Your task to perform on an android device: uninstall "Google Photos" Image 0: 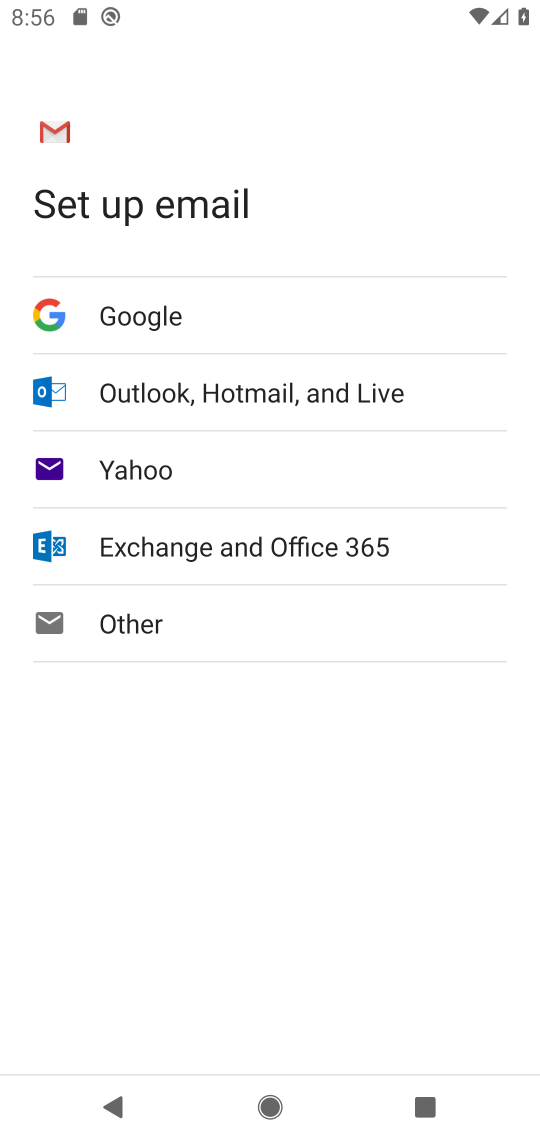
Step 0: press home button
Your task to perform on an android device: uninstall "Google Photos" Image 1: 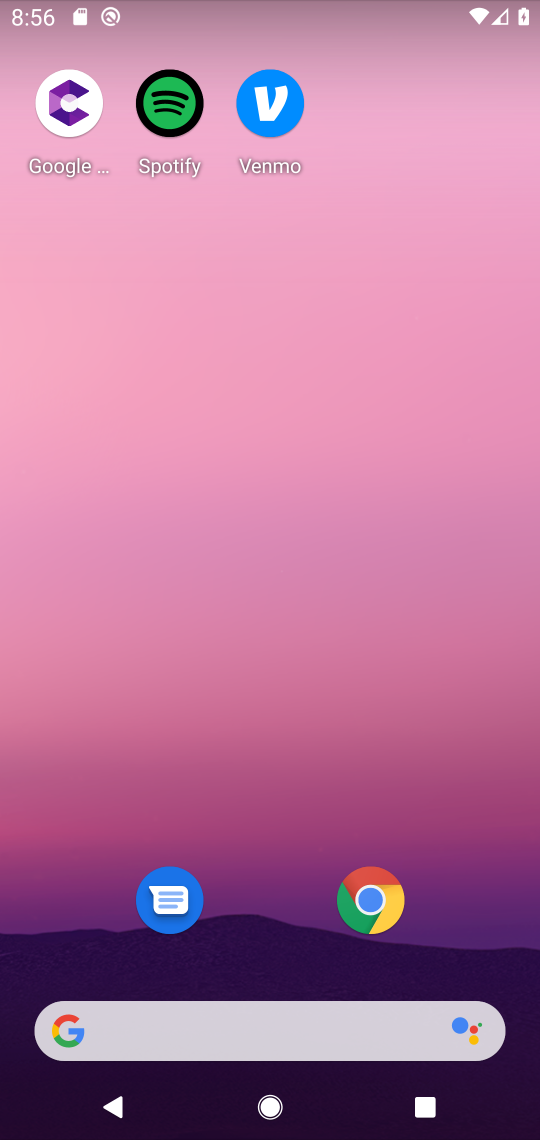
Step 1: drag from (263, 933) to (234, 246)
Your task to perform on an android device: uninstall "Google Photos" Image 2: 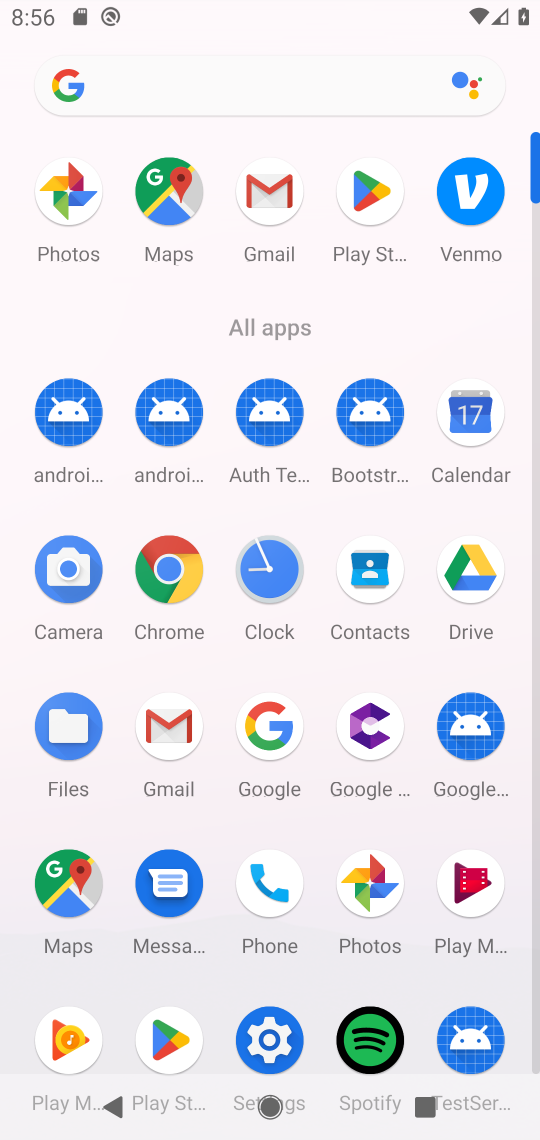
Step 2: click (373, 217)
Your task to perform on an android device: uninstall "Google Photos" Image 3: 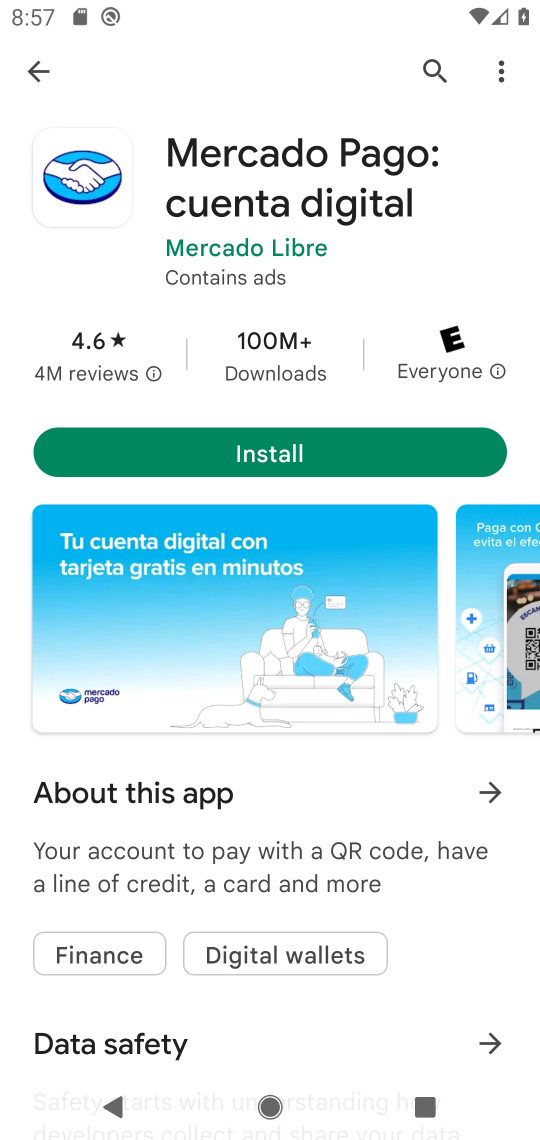
Step 3: click (33, 68)
Your task to perform on an android device: uninstall "Google Photos" Image 4: 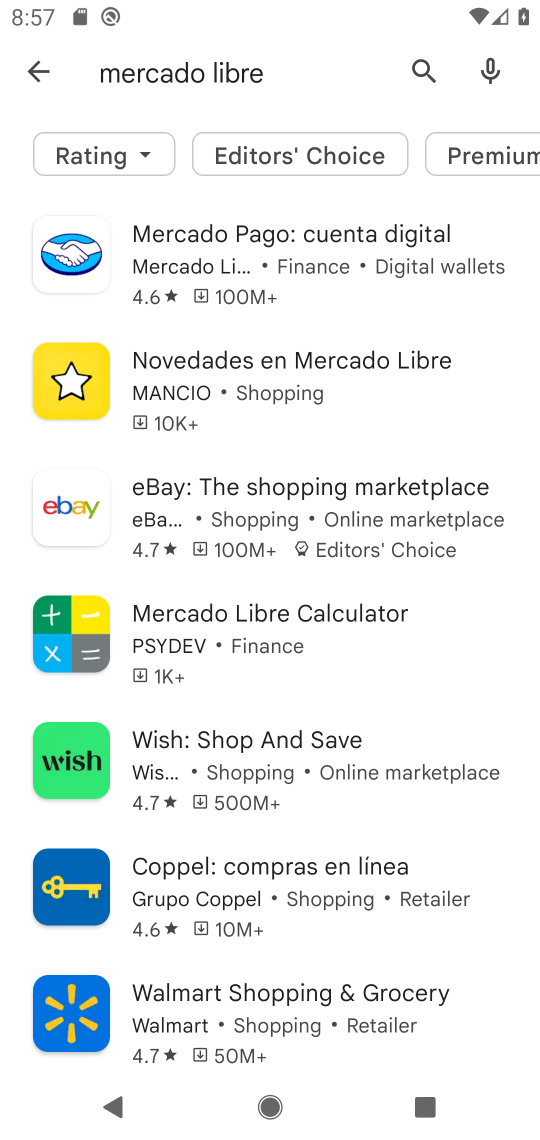
Step 4: click (24, 60)
Your task to perform on an android device: uninstall "Google Photos" Image 5: 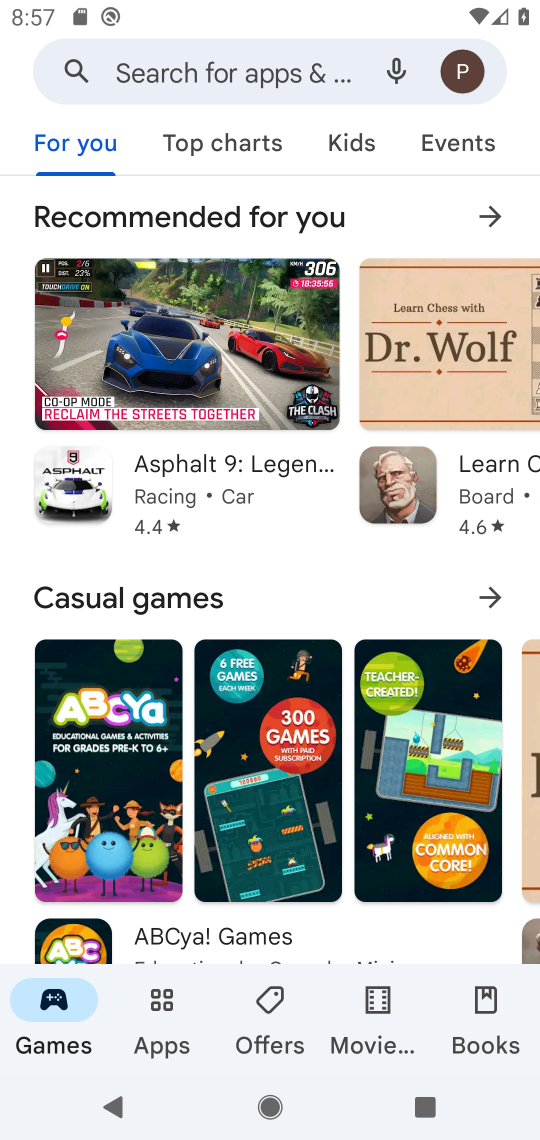
Step 5: click (167, 85)
Your task to perform on an android device: uninstall "Google Photos" Image 6: 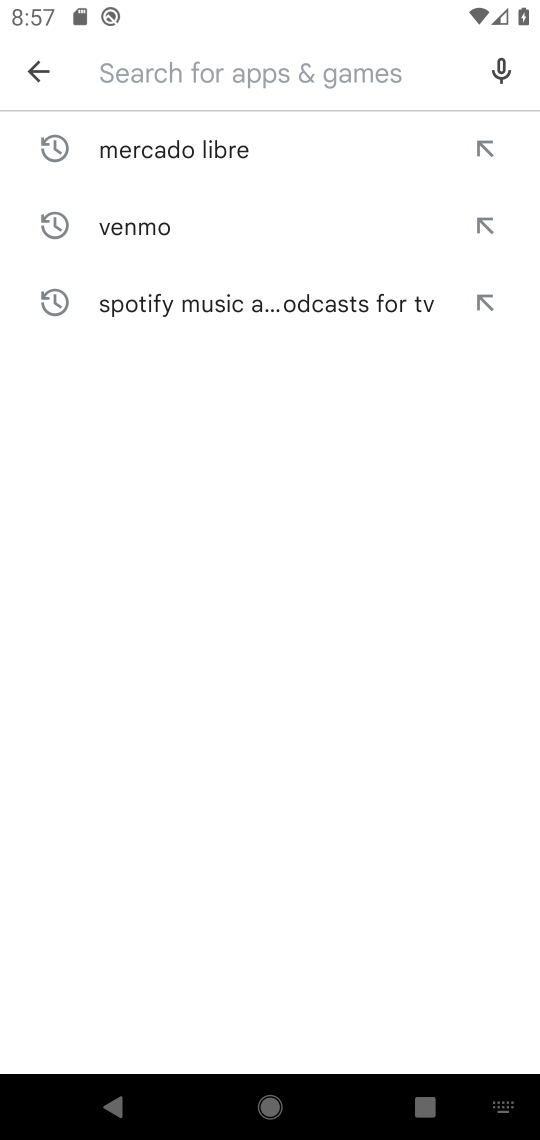
Step 6: type "Google Photos"
Your task to perform on an android device: uninstall "Google Photos" Image 7: 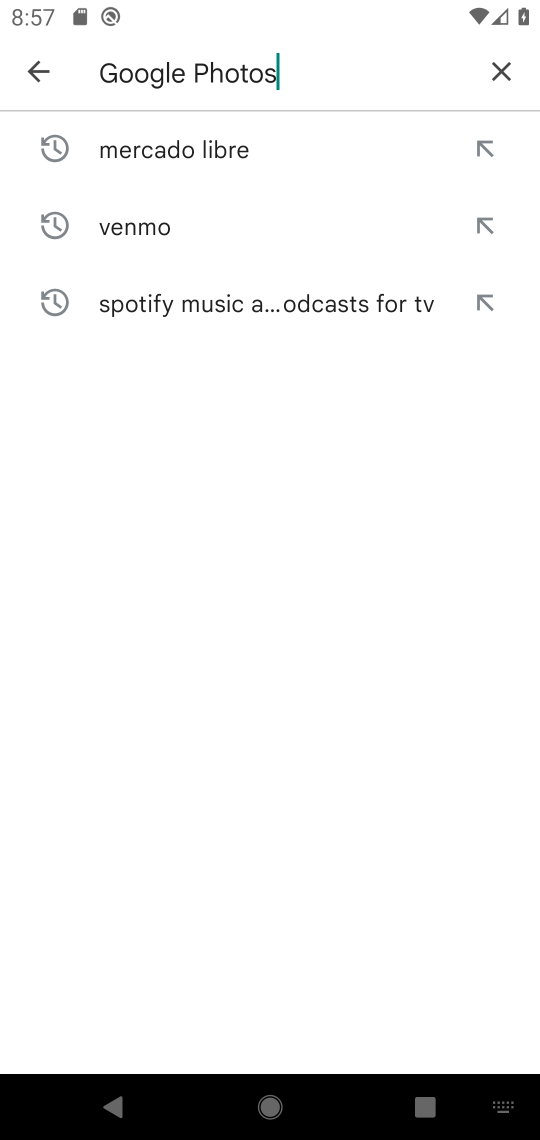
Step 7: type ""
Your task to perform on an android device: uninstall "Google Photos" Image 8: 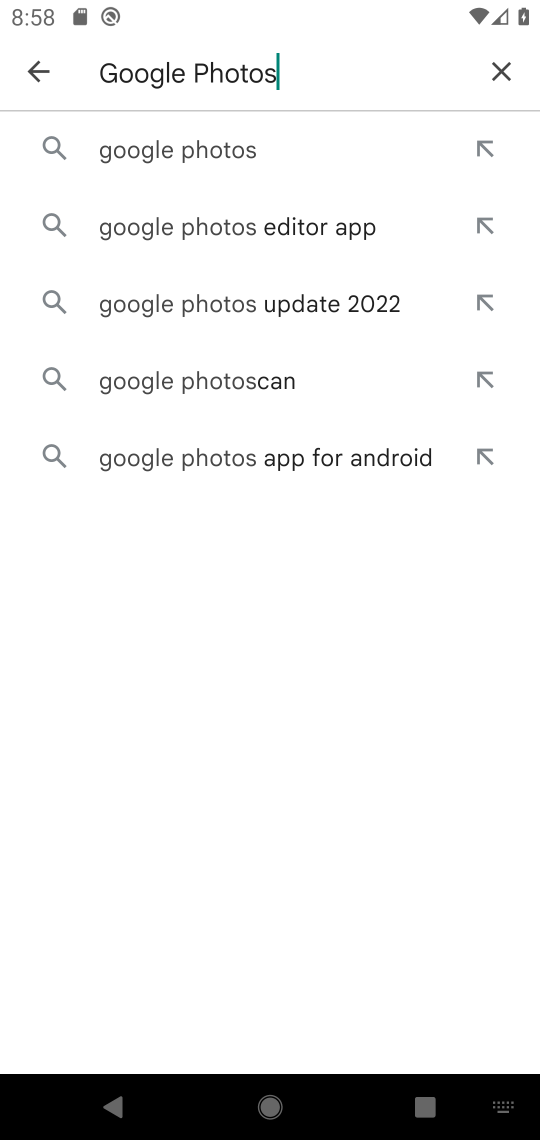
Step 8: click (202, 143)
Your task to perform on an android device: uninstall "Google Photos" Image 9: 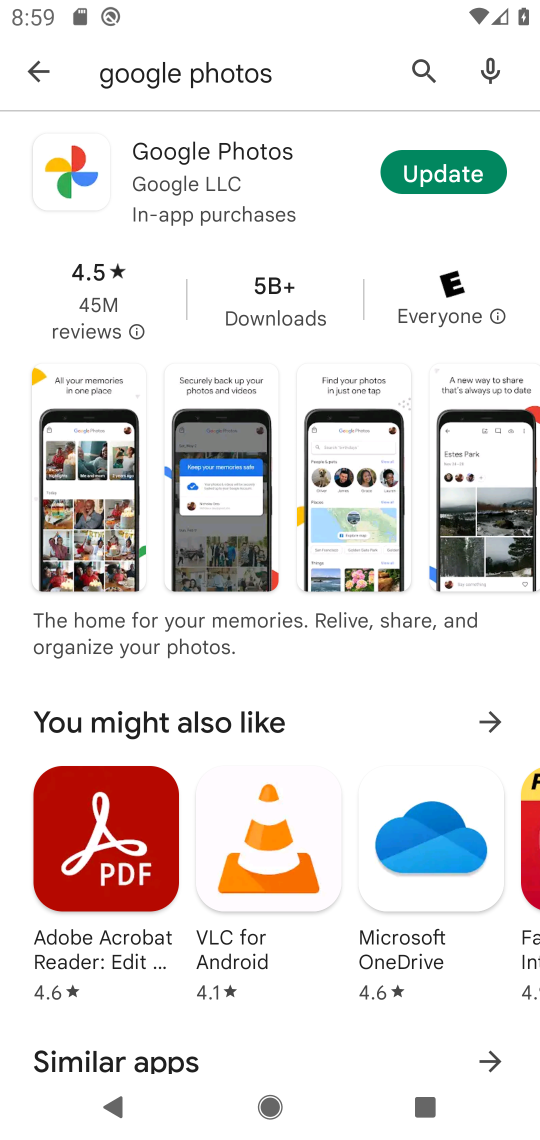
Step 9: task complete